Your task to perform on an android device: Go to calendar. Show me events next week Image 0: 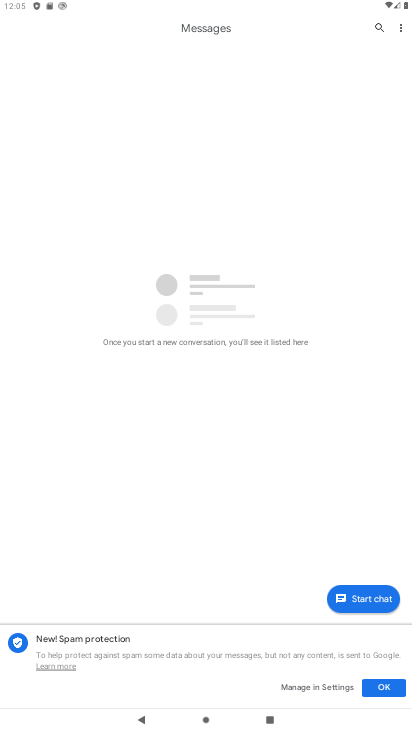
Step 0: press home button
Your task to perform on an android device: Go to calendar. Show me events next week Image 1: 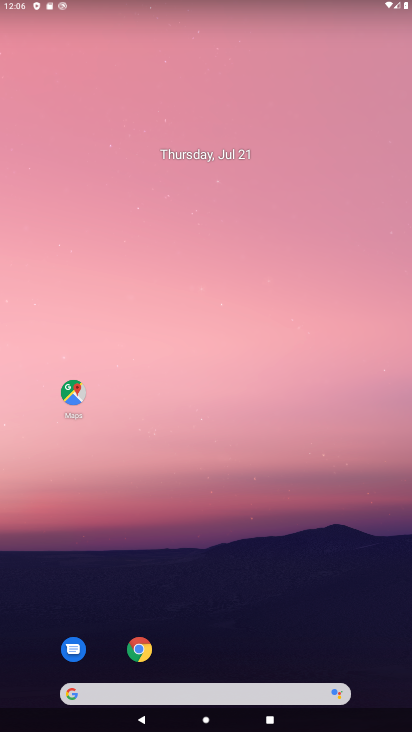
Step 1: drag from (231, 638) to (240, 34)
Your task to perform on an android device: Go to calendar. Show me events next week Image 2: 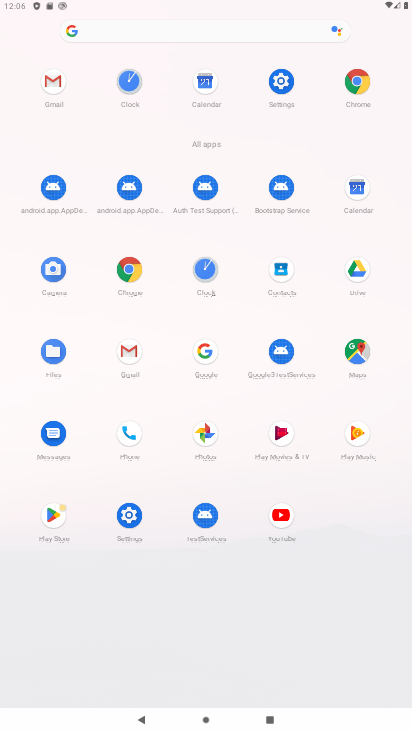
Step 2: click (202, 91)
Your task to perform on an android device: Go to calendar. Show me events next week Image 3: 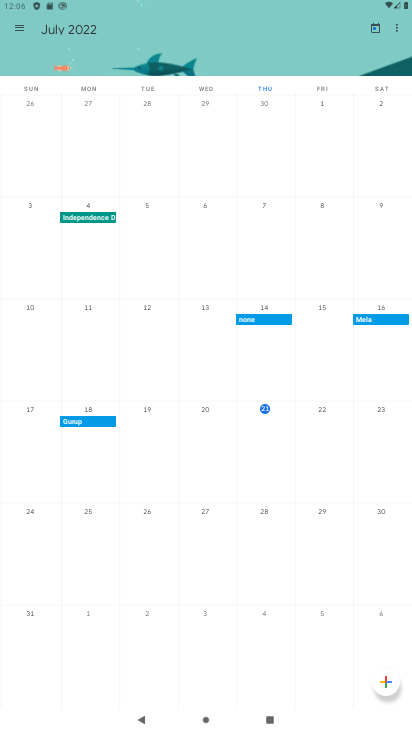
Step 3: task complete